Your task to perform on an android device: delete location history Image 0: 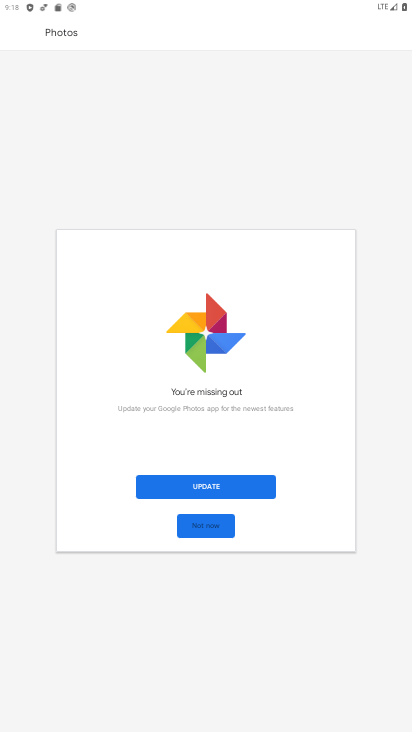
Step 0: press home button
Your task to perform on an android device: delete location history Image 1: 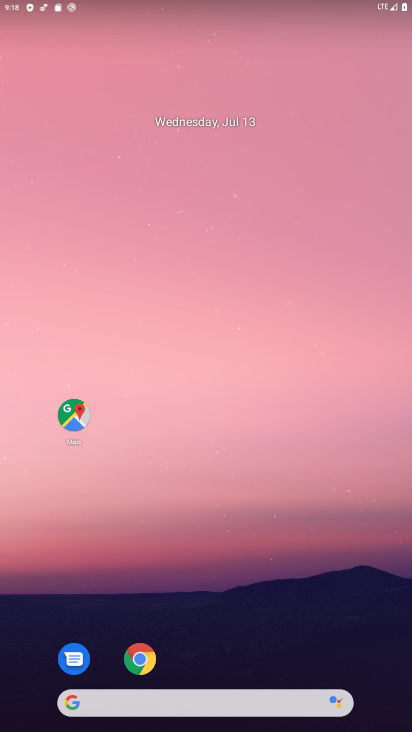
Step 1: click (74, 417)
Your task to perform on an android device: delete location history Image 2: 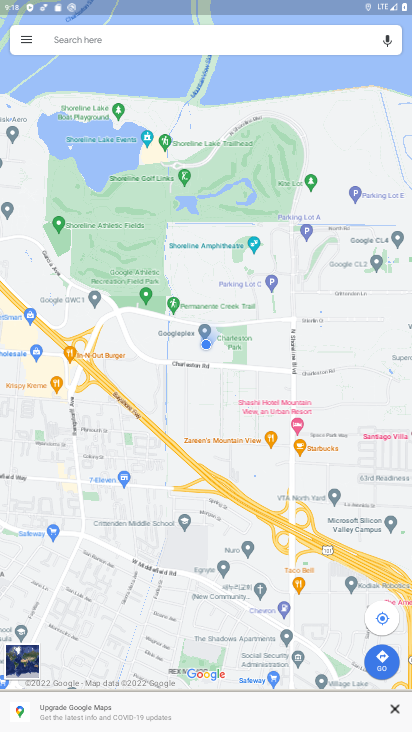
Step 2: click (22, 38)
Your task to perform on an android device: delete location history Image 3: 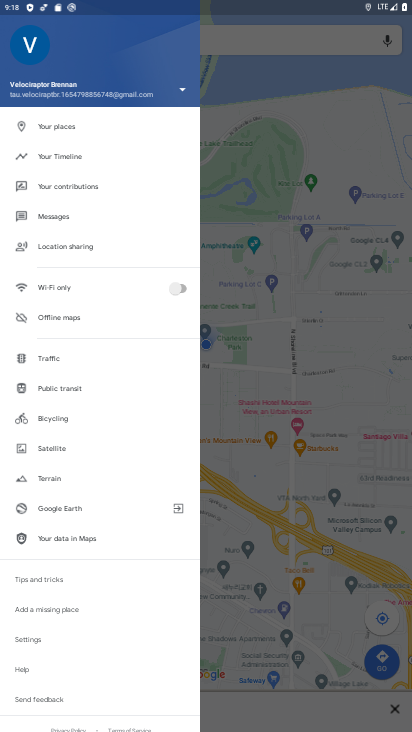
Step 3: click (29, 636)
Your task to perform on an android device: delete location history Image 4: 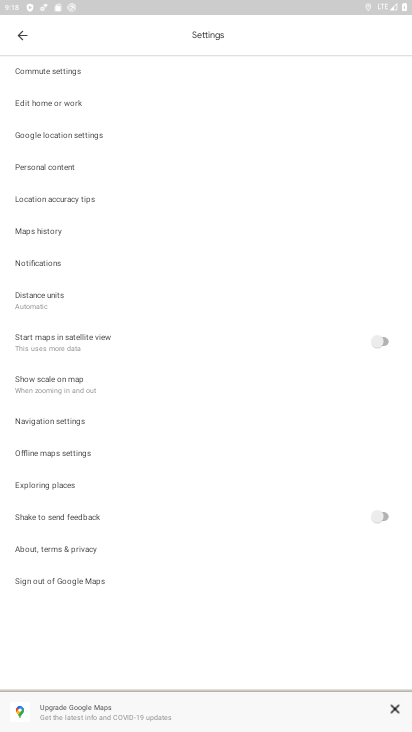
Step 4: click (46, 169)
Your task to perform on an android device: delete location history Image 5: 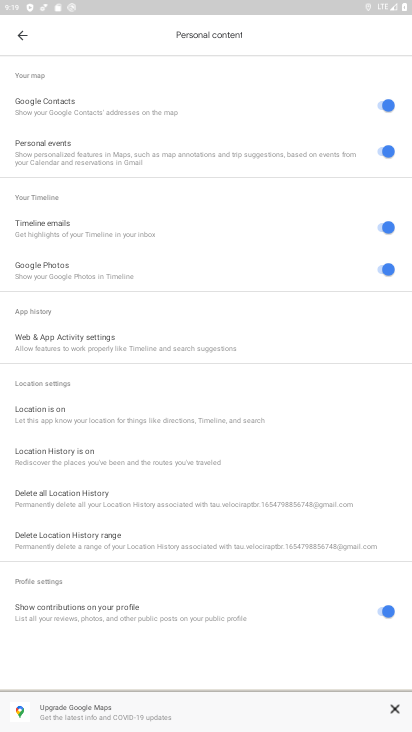
Step 5: click (50, 502)
Your task to perform on an android device: delete location history Image 6: 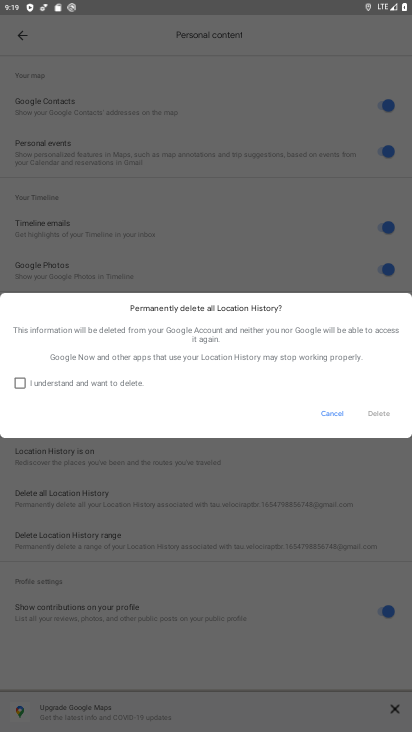
Step 6: click (18, 379)
Your task to perform on an android device: delete location history Image 7: 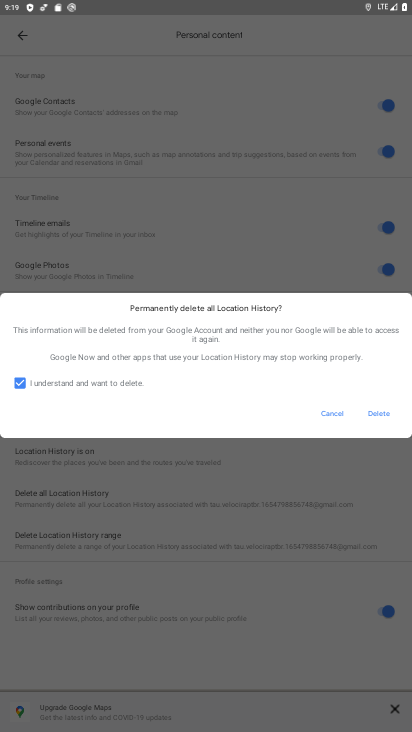
Step 7: click (380, 409)
Your task to perform on an android device: delete location history Image 8: 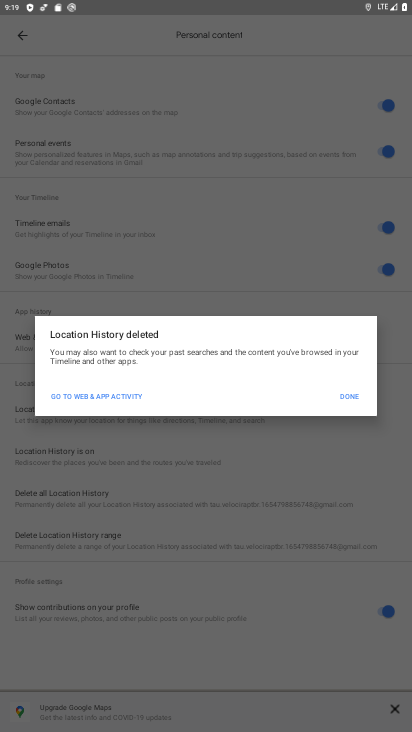
Step 8: click (351, 400)
Your task to perform on an android device: delete location history Image 9: 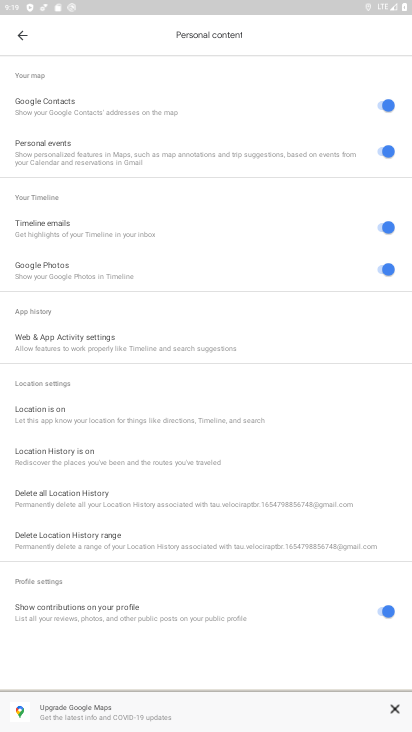
Step 9: task complete